Your task to perform on an android device: Turn off the flashlight Image 0: 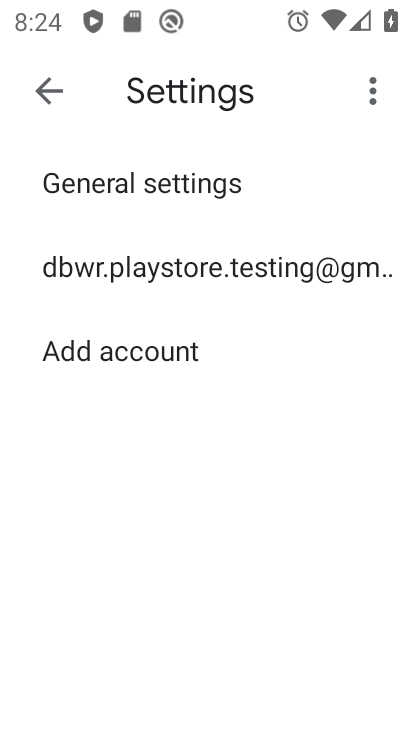
Step 0: click (48, 94)
Your task to perform on an android device: Turn off the flashlight Image 1: 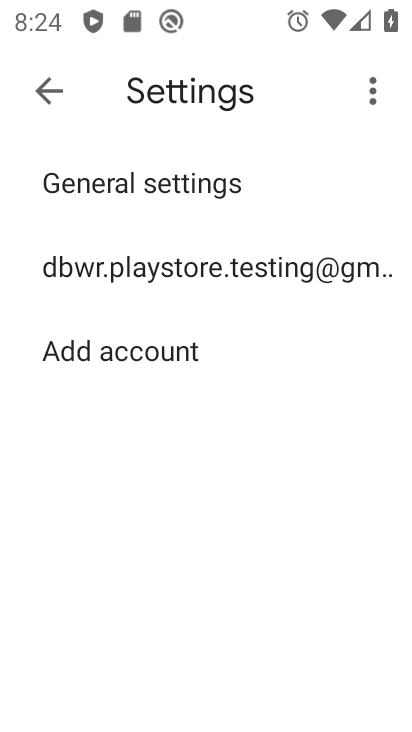
Step 1: click (48, 94)
Your task to perform on an android device: Turn off the flashlight Image 2: 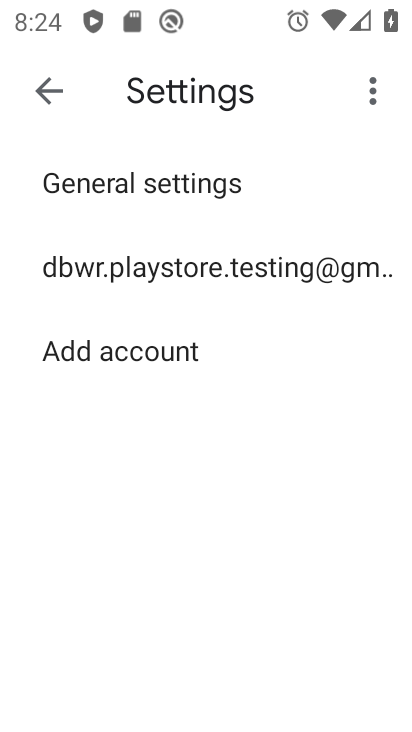
Step 2: press back button
Your task to perform on an android device: Turn off the flashlight Image 3: 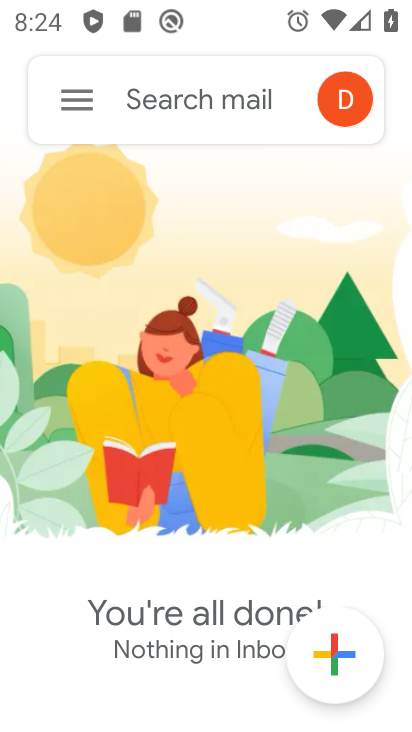
Step 3: press back button
Your task to perform on an android device: Turn off the flashlight Image 4: 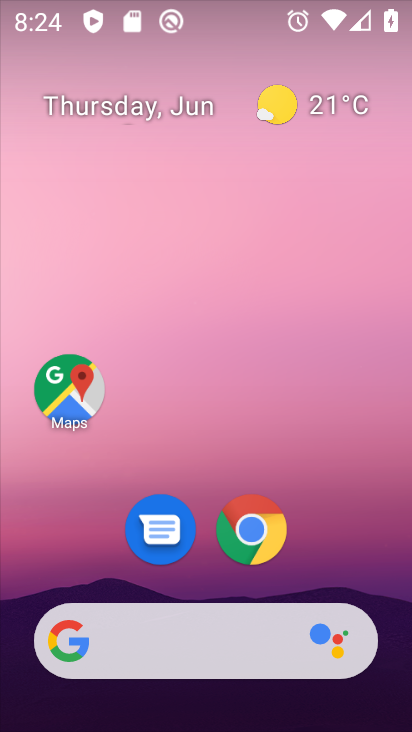
Step 4: drag from (380, 538) to (370, 220)
Your task to perform on an android device: Turn off the flashlight Image 5: 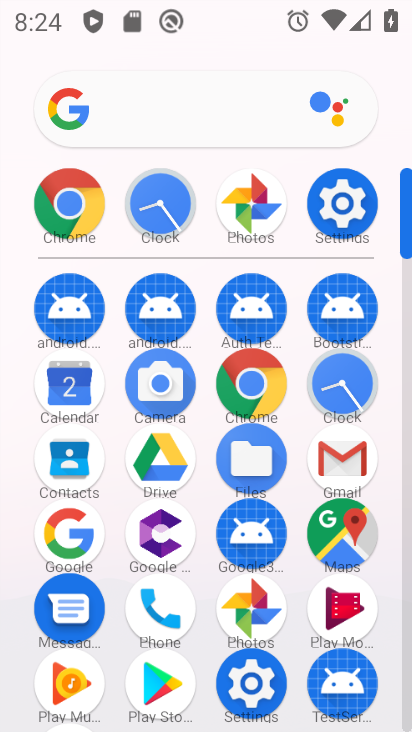
Step 5: click (346, 202)
Your task to perform on an android device: Turn off the flashlight Image 6: 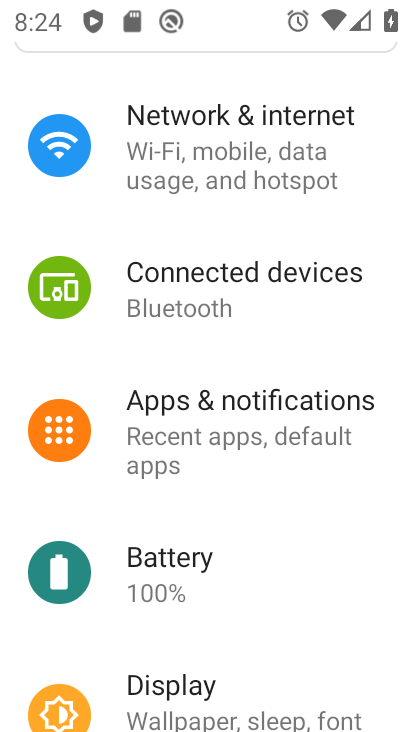
Step 6: click (185, 675)
Your task to perform on an android device: Turn off the flashlight Image 7: 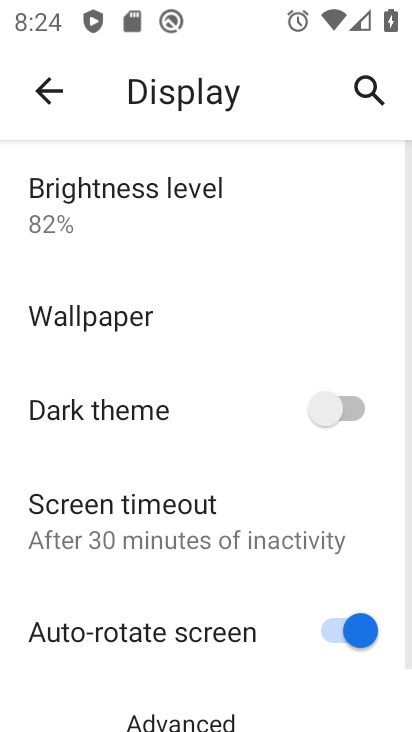
Step 7: task complete